Your task to perform on an android device: Open settings Image 0: 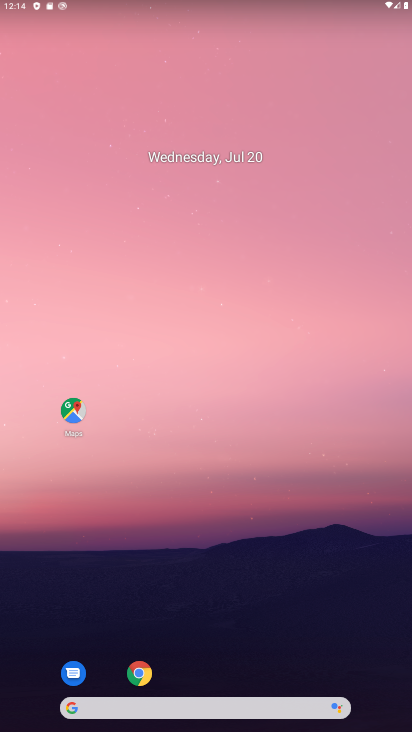
Step 0: drag from (200, 34) to (274, 33)
Your task to perform on an android device: Open settings Image 1: 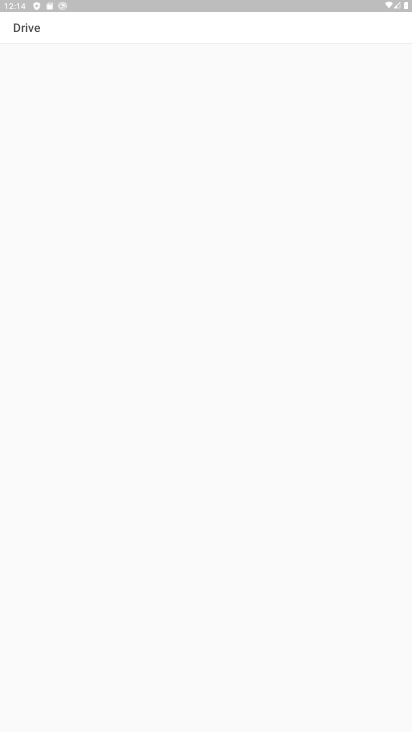
Step 1: drag from (282, 637) to (233, 190)
Your task to perform on an android device: Open settings Image 2: 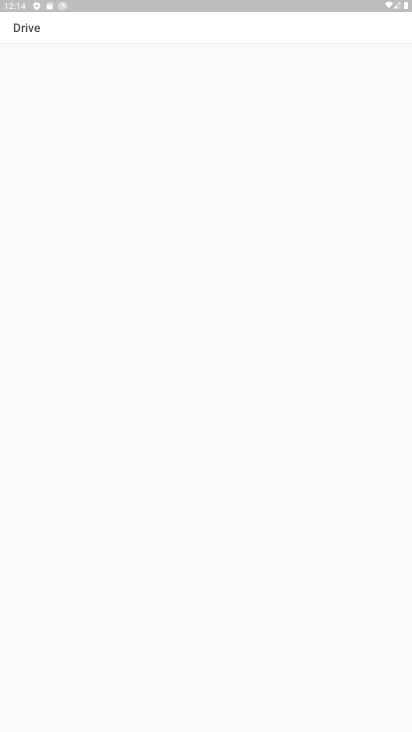
Step 2: drag from (184, 210) to (164, 72)
Your task to perform on an android device: Open settings Image 3: 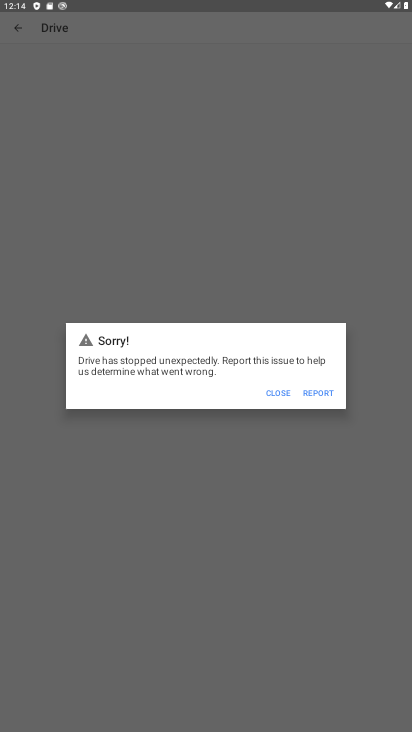
Step 3: press back button
Your task to perform on an android device: Open settings Image 4: 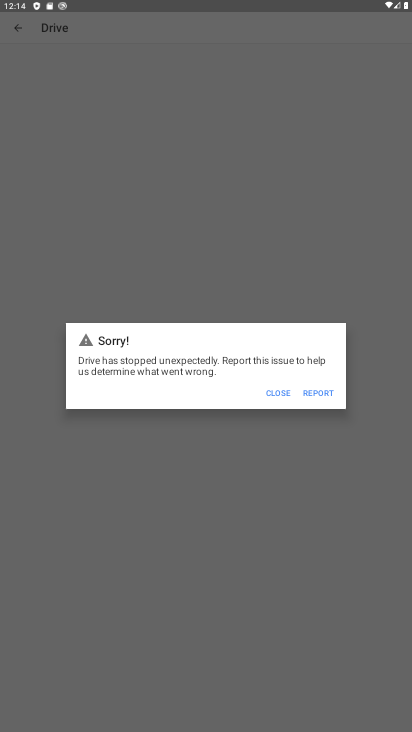
Step 4: click (278, 395)
Your task to perform on an android device: Open settings Image 5: 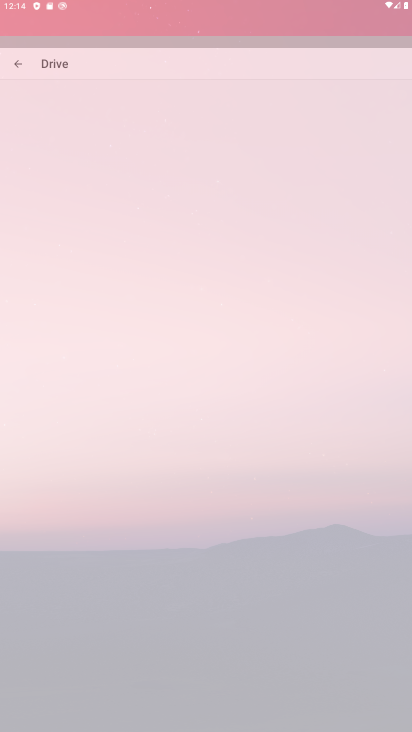
Step 5: click (281, 391)
Your task to perform on an android device: Open settings Image 6: 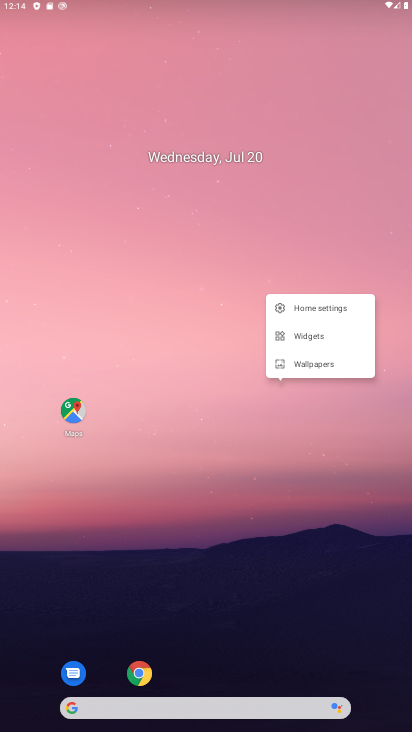
Step 6: drag from (231, 531) to (196, 171)
Your task to perform on an android device: Open settings Image 7: 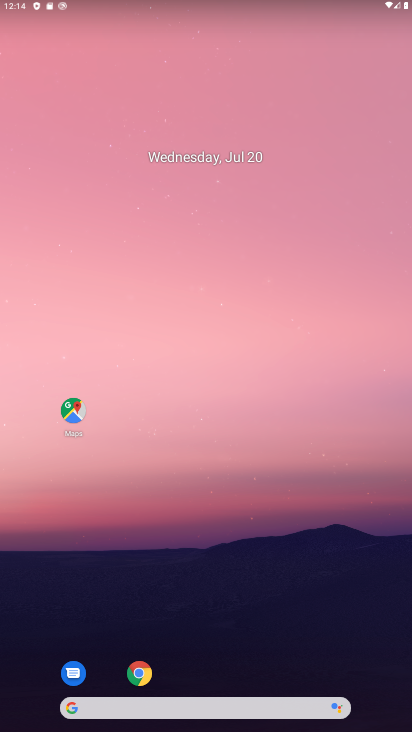
Step 7: drag from (254, 475) to (179, 133)
Your task to perform on an android device: Open settings Image 8: 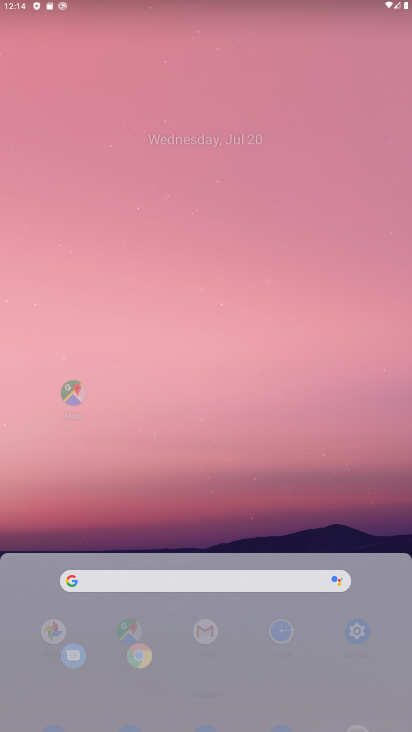
Step 8: drag from (235, 298) to (235, 108)
Your task to perform on an android device: Open settings Image 9: 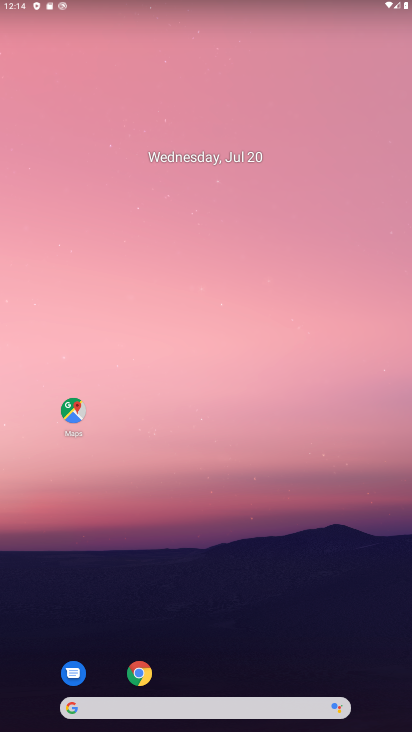
Step 9: drag from (219, 413) to (203, 116)
Your task to perform on an android device: Open settings Image 10: 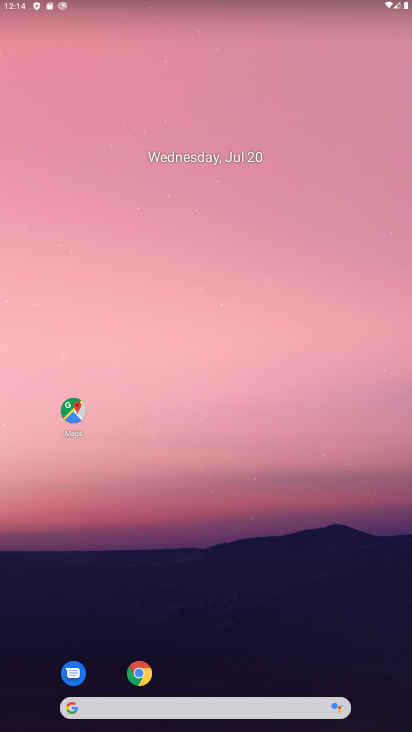
Step 10: drag from (237, 333) to (237, 47)
Your task to perform on an android device: Open settings Image 11: 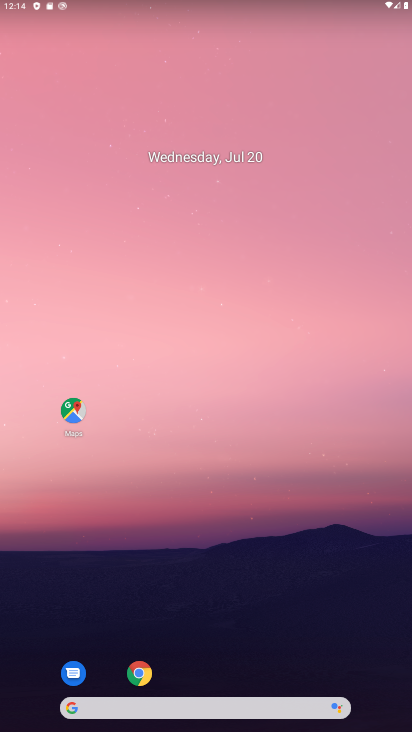
Step 11: drag from (272, 474) to (202, 156)
Your task to perform on an android device: Open settings Image 12: 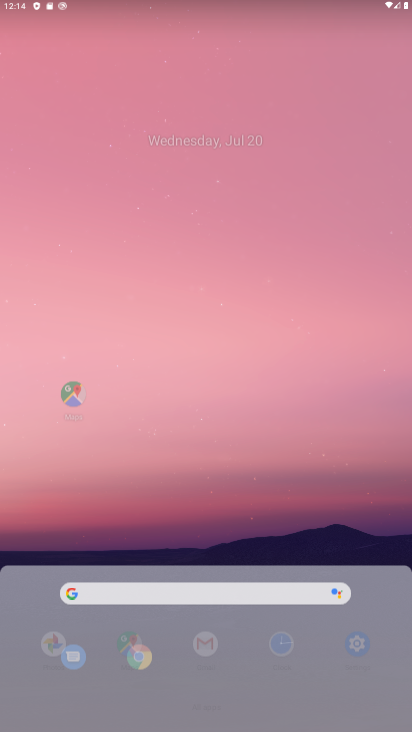
Step 12: drag from (239, 451) to (228, 140)
Your task to perform on an android device: Open settings Image 13: 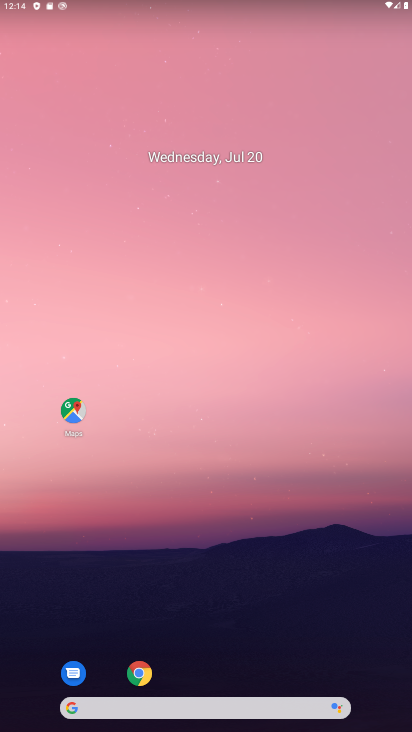
Step 13: drag from (223, 486) to (157, 43)
Your task to perform on an android device: Open settings Image 14: 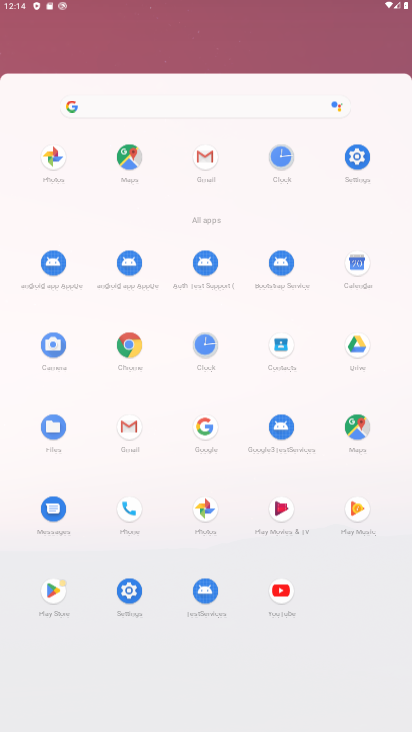
Step 14: drag from (261, 512) to (200, 200)
Your task to perform on an android device: Open settings Image 15: 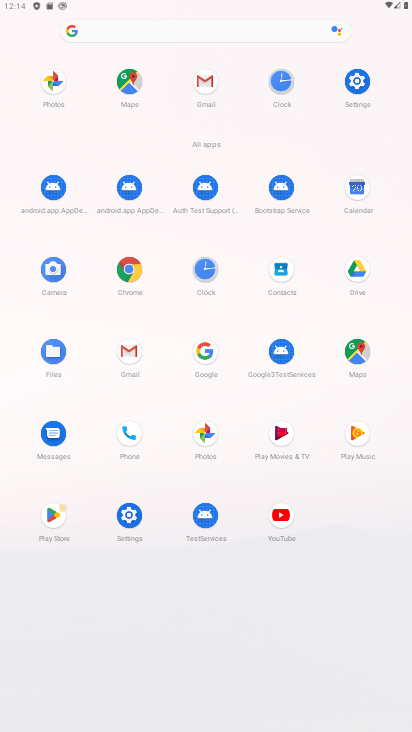
Step 15: click (352, 83)
Your task to perform on an android device: Open settings Image 16: 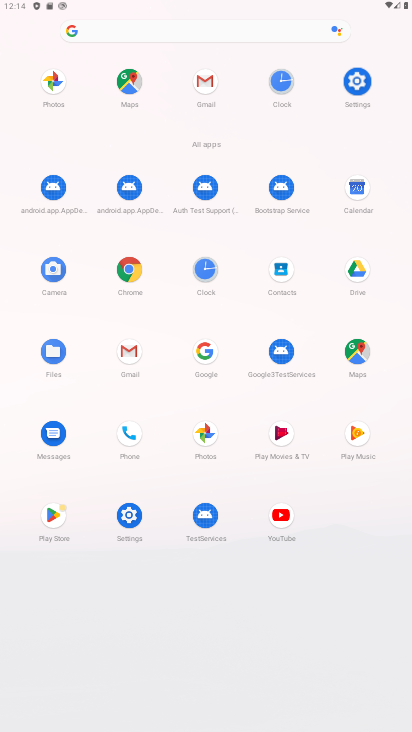
Step 16: click (356, 85)
Your task to perform on an android device: Open settings Image 17: 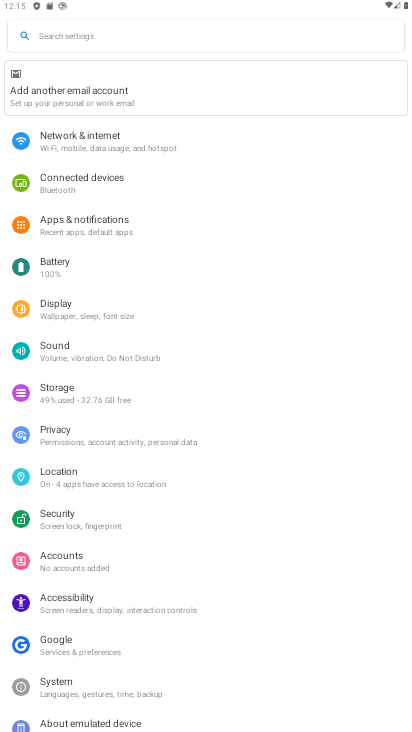
Step 17: task complete